Your task to perform on an android device: Show the shopping cart on walmart. Add "dell xps" to the cart on walmart, then select checkout. Image 0: 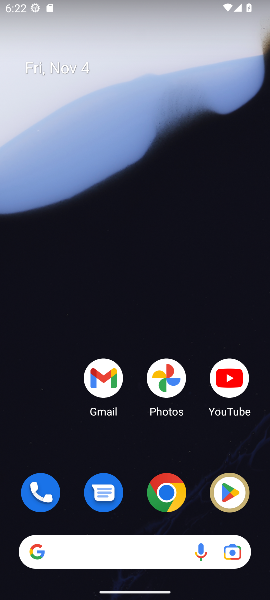
Step 0: drag from (127, 440) to (130, 88)
Your task to perform on an android device: Show the shopping cart on walmart. Add "dell xps" to the cart on walmart, then select checkout. Image 1: 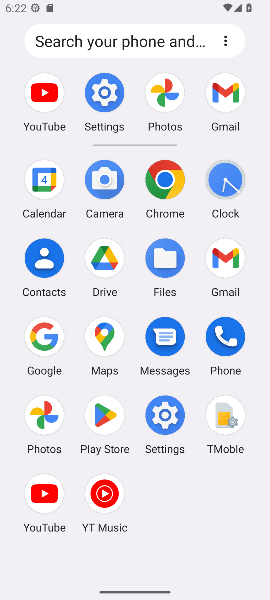
Step 1: click (168, 180)
Your task to perform on an android device: Show the shopping cart on walmart. Add "dell xps" to the cart on walmart, then select checkout. Image 2: 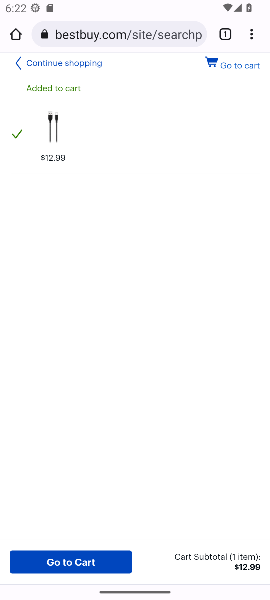
Step 2: click (156, 35)
Your task to perform on an android device: Show the shopping cart on walmart. Add "dell xps" to the cart on walmart, then select checkout. Image 3: 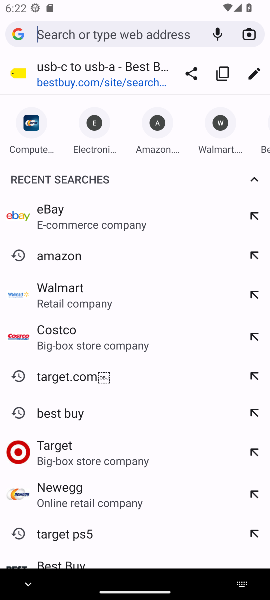
Step 3: type "walmart.com"
Your task to perform on an android device: Show the shopping cart on walmart. Add "dell xps" to the cart on walmart, then select checkout. Image 4: 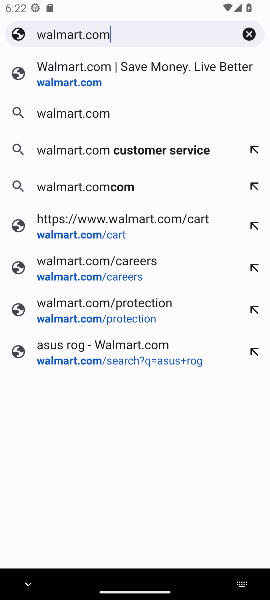
Step 4: press enter
Your task to perform on an android device: Show the shopping cart on walmart. Add "dell xps" to the cart on walmart, then select checkout. Image 5: 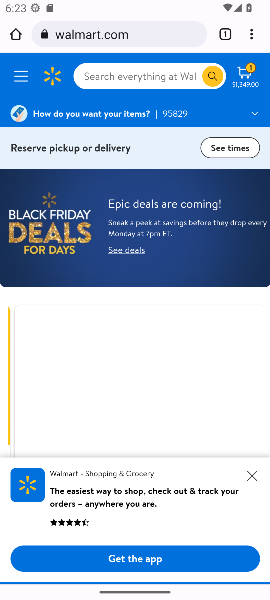
Step 5: click (246, 75)
Your task to perform on an android device: Show the shopping cart on walmart. Add "dell xps" to the cart on walmart, then select checkout. Image 6: 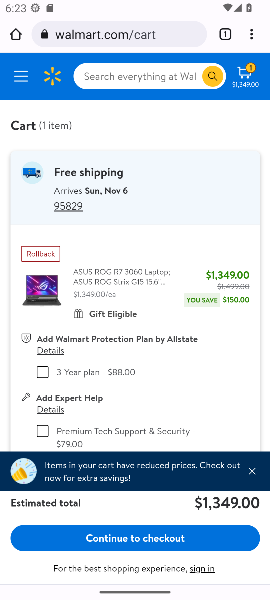
Step 6: click (162, 76)
Your task to perform on an android device: Show the shopping cart on walmart. Add "dell xps" to the cart on walmart, then select checkout. Image 7: 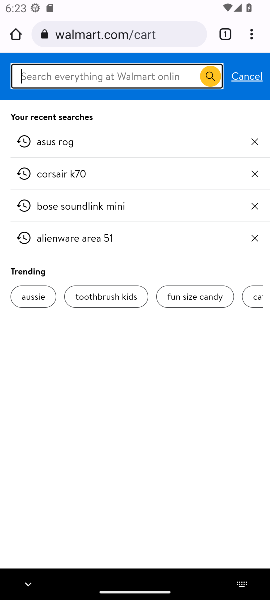
Step 7: type "dell xps"
Your task to perform on an android device: Show the shopping cart on walmart. Add "dell xps" to the cart on walmart, then select checkout. Image 8: 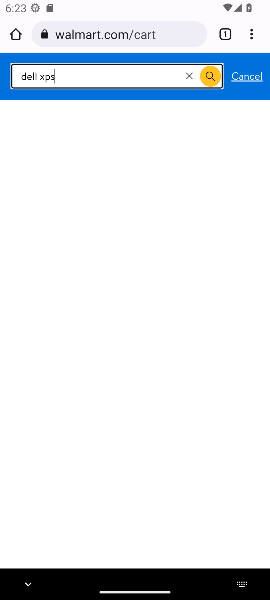
Step 8: press enter
Your task to perform on an android device: Show the shopping cart on walmart. Add "dell xps" to the cart on walmart, then select checkout. Image 9: 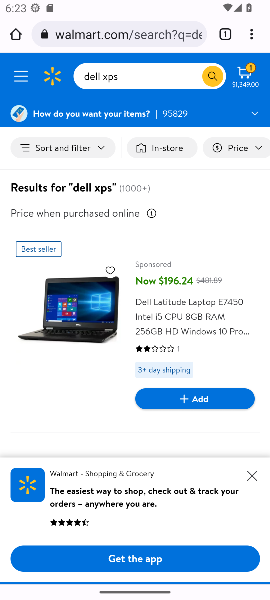
Step 9: drag from (111, 421) to (157, 86)
Your task to perform on an android device: Show the shopping cart on walmart. Add "dell xps" to the cart on walmart, then select checkout. Image 10: 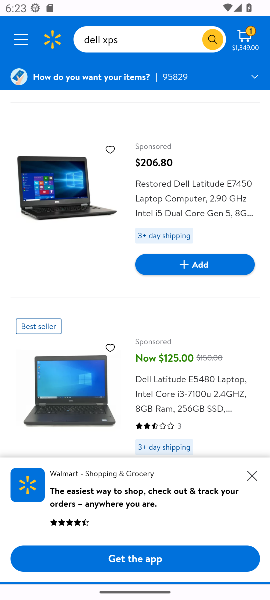
Step 10: drag from (178, 424) to (205, 119)
Your task to perform on an android device: Show the shopping cart on walmart. Add "dell xps" to the cart on walmart, then select checkout. Image 11: 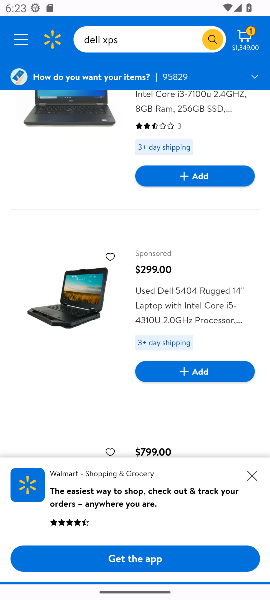
Step 11: drag from (159, 445) to (172, 172)
Your task to perform on an android device: Show the shopping cart on walmart. Add "dell xps" to the cart on walmart, then select checkout. Image 12: 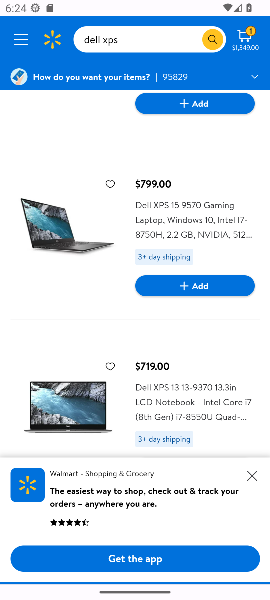
Step 12: click (214, 292)
Your task to perform on an android device: Show the shopping cart on walmart. Add "dell xps" to the cart on walmart, then select checkout. Image 13: 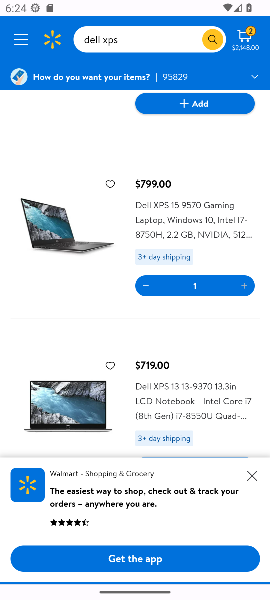
Step 13: click (254, 43)
Your task to perform on an android device: Show the shopping cart on walmart. Add "dell xps" to the cart on walmart, then select checkout. Image 14: 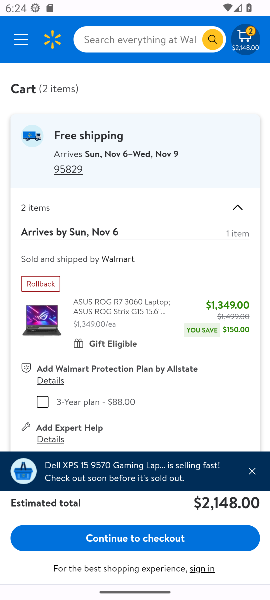
Step 14: click (174, 535)
Your task to perform on an android device: Show the shopping cart on walmart. Add "dell xps" to the cart on walmart, then select checkout. Image 15: 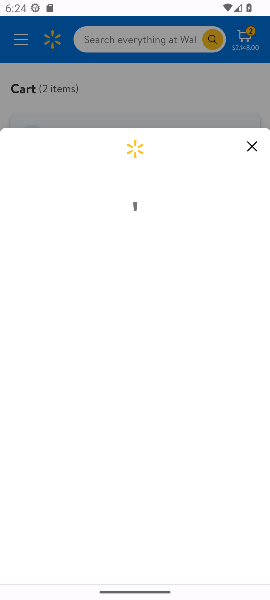
Step 15: task complete